Your task to perform on an android device: turn notification dots on Image 0: 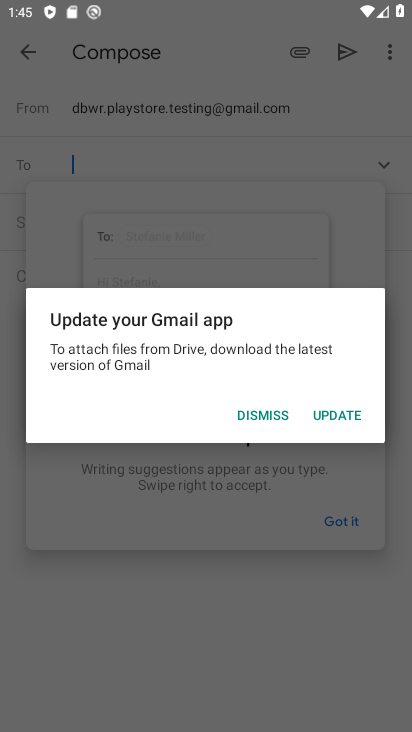
Step 0: press home button
Your task to perform on an android device: turn notification dots on Image 1: 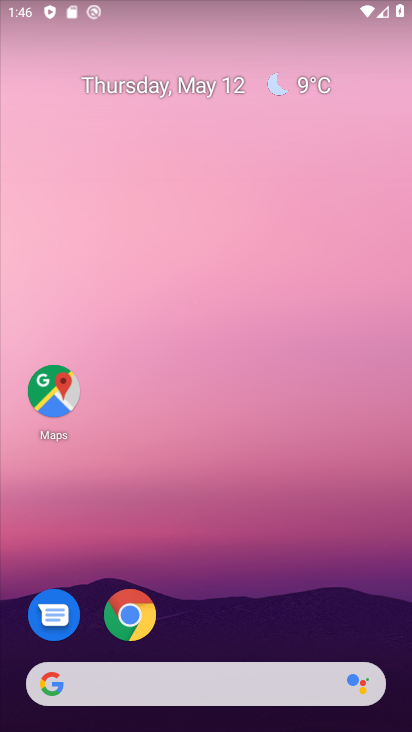
Step 1: drag from (214, 676) to (189, 174)
Your task to perform on an android device: turn notification dots on Image 2: 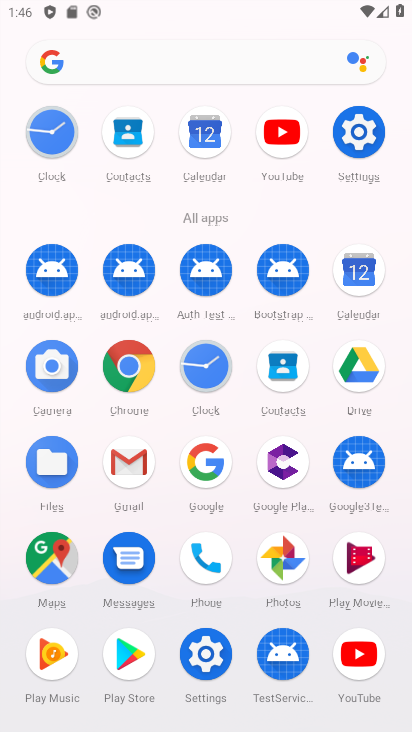
Step 2: click (204, 648)
Your task to perform on an android device: turn notification dots on Image 3: 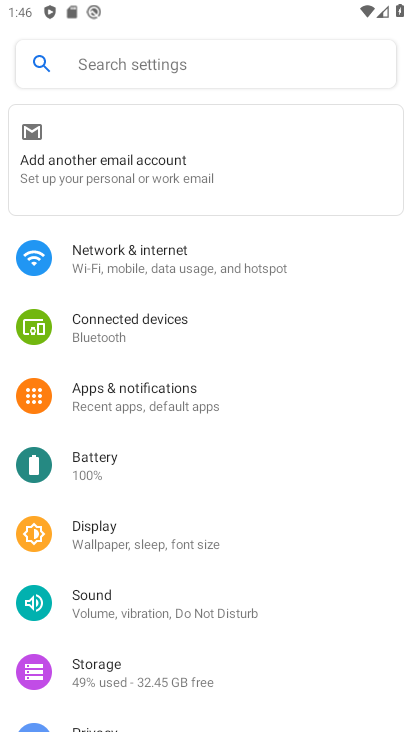
Step 3: click (162, 398)
Your task to perform on an android device: turn notification dots on Image 4: 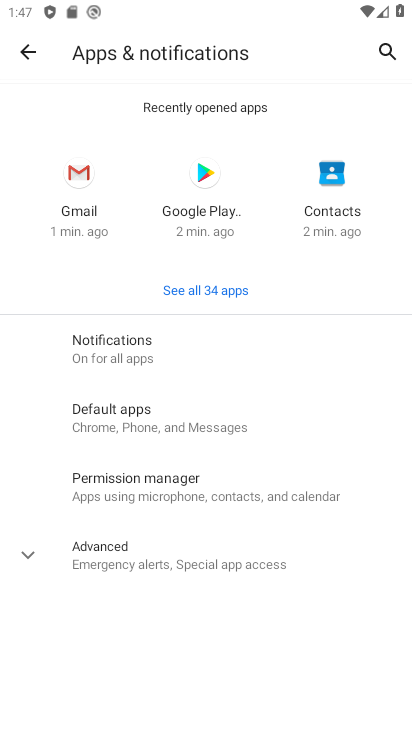
Step 4: click (125, 354)
Your task to perform on an android device: turn notification dots on Image 5: 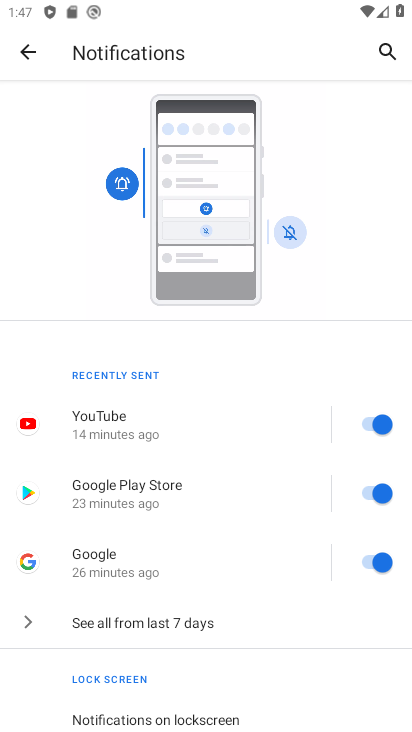
Step 5: drag from (144, 656) to (137, 48)
Your task to perform on an android device: turn notification dots on Image 6: 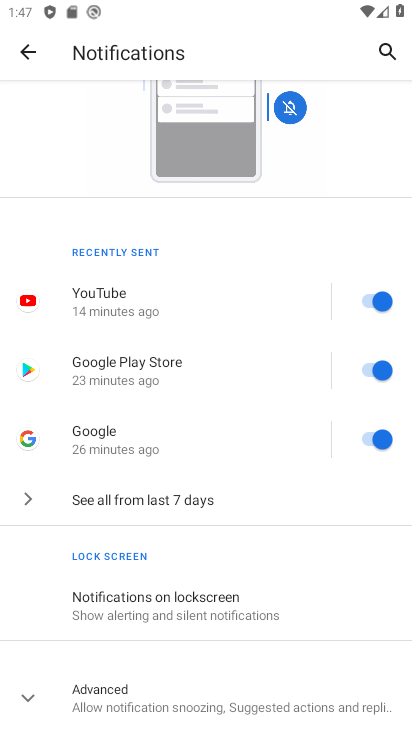
Step 6: click (135, 691)
Your task to perform on an android device: turn notification dots on Image 7: 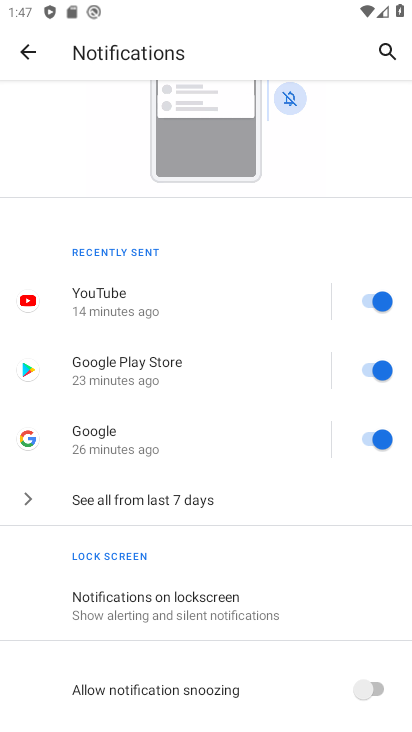
Step 7: drag from (122, 637) to (123, 184)
Your task to perform on an android device: turn notification dots on Image 8: 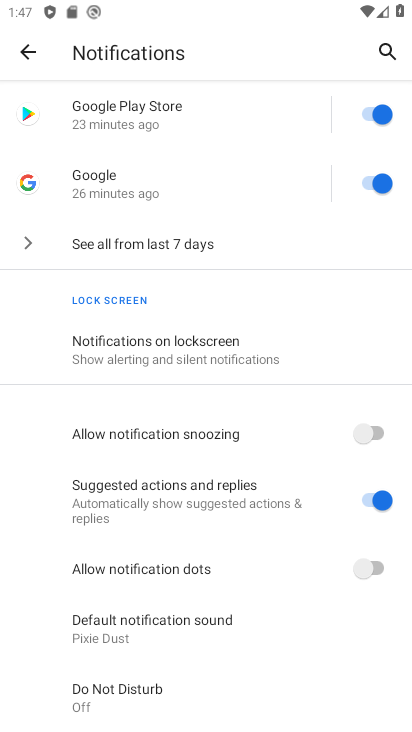
Step 8: click (363, 584)
Your task to perform on an android device: turn notification dots on Image 9: 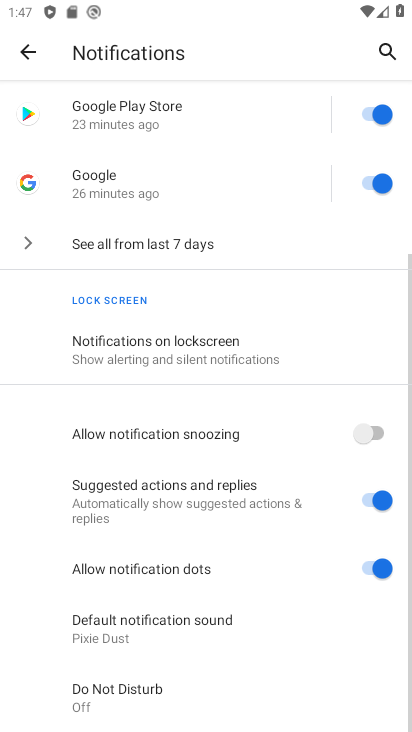
Step 9: task complete